Your task to perform on an android device: What's the weather going to be tomorrow? Image 0: 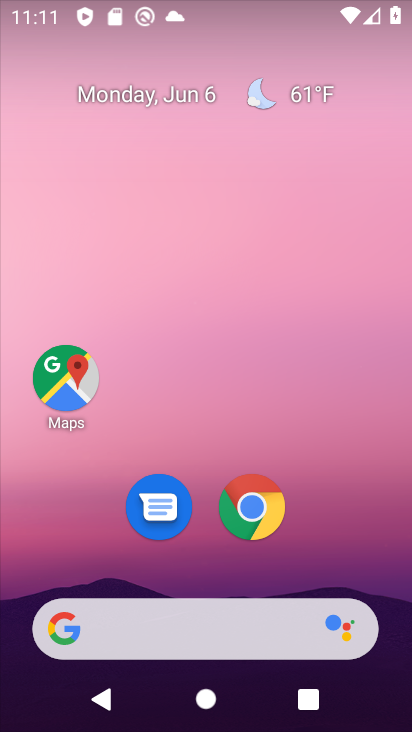
Step 0: drag from (205, 554) to (168, 86)
Your task to perform on an android device: What's the weather going to be tomorrow? Image 1: 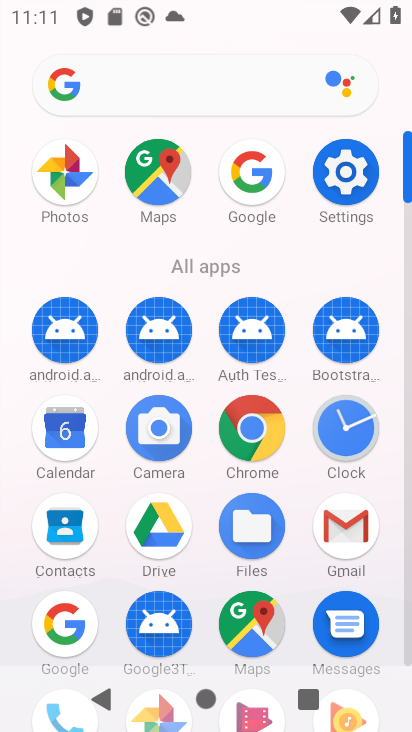
Step 1: click (249, 178)
Your task to perform on an android device: What's the weather going to be tomorrow? Image 2: 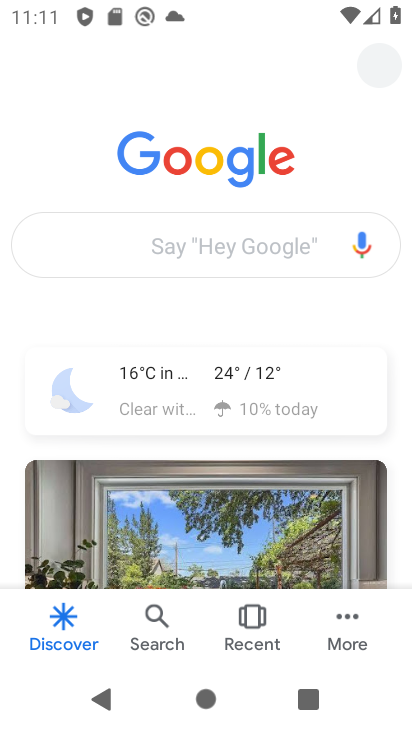
Step 2: click (219, 251)
Your task to perform on an android device: What's the weather going to be tomorrow? Image 3: 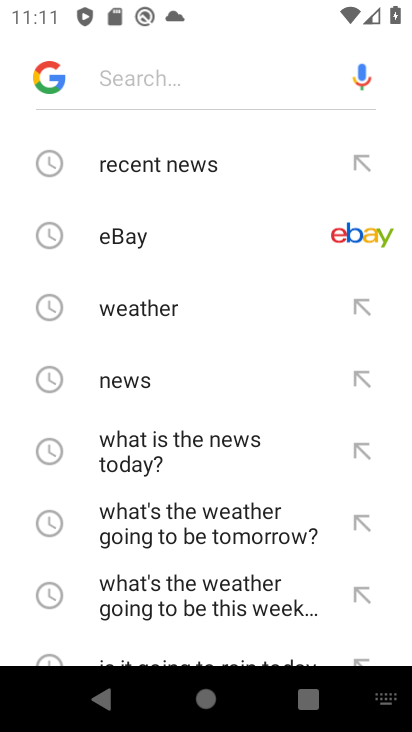
Step 3: click (167, 526)
Your task to perform on an android device: What's the weather going to be tomorrow? Image 4: 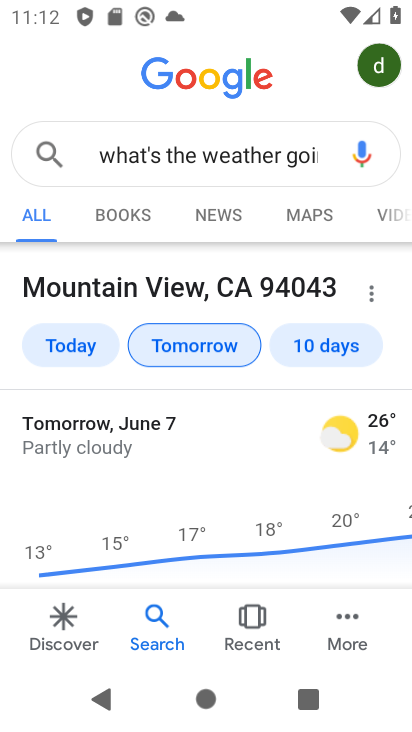
Step 4: task complete